Your task to perform on an android device: add a contact Image 0: 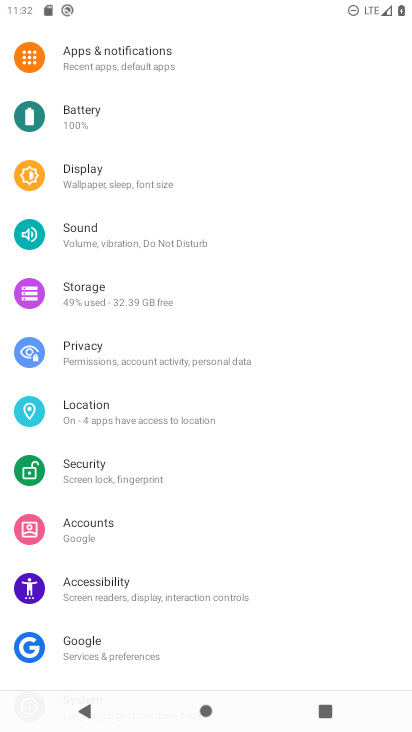
Step 0: press home button
Your task to perform on an android device: add a contact Image 1: 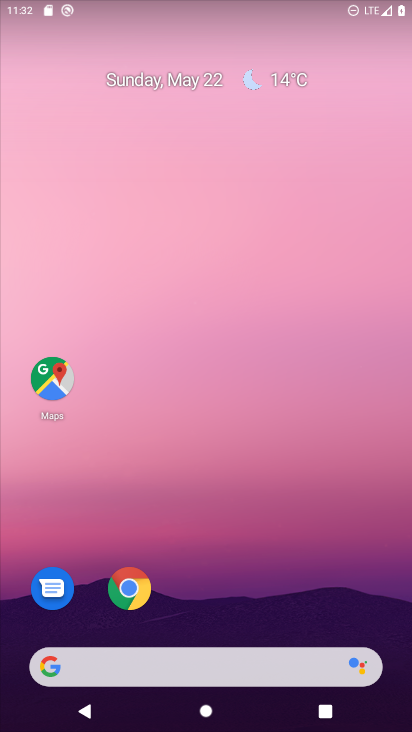
Step 1: drag from (241, 595) to (230, 131)
Your task to perform on an android device: add a contact Image 2: 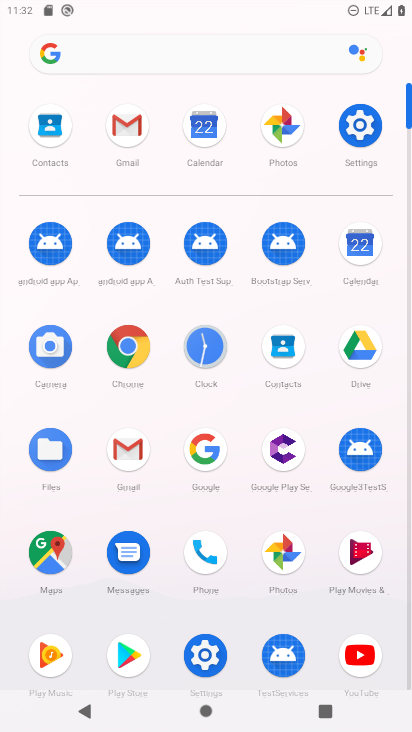
Step 2: click (293, 365)
Your task to perform on an android device: add a contact Image 3: 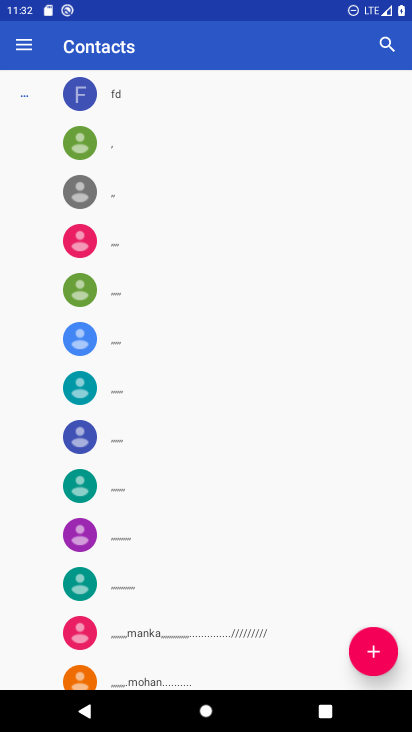
Step 3: click (376, 635)
Your task to perform on an android device: add a contact Image 4: 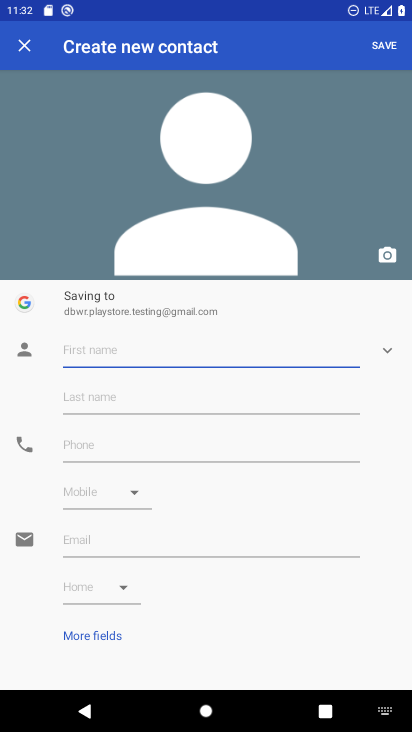
Step 4: type "jvjbllkj"
Your task to perform on an android device: add a contact Image 5: 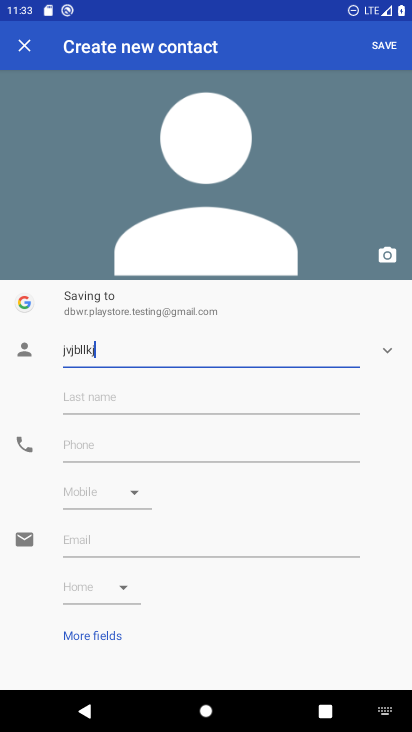
Step 5: click (136, 438)
Your task to perform on an android device: add a contact Image 6: 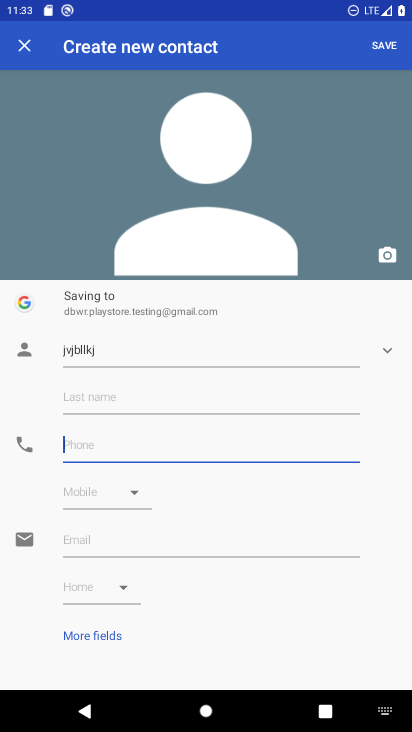
Step 6: type "98776896786"
Your task to perform on an android device: add a contact Image 7: 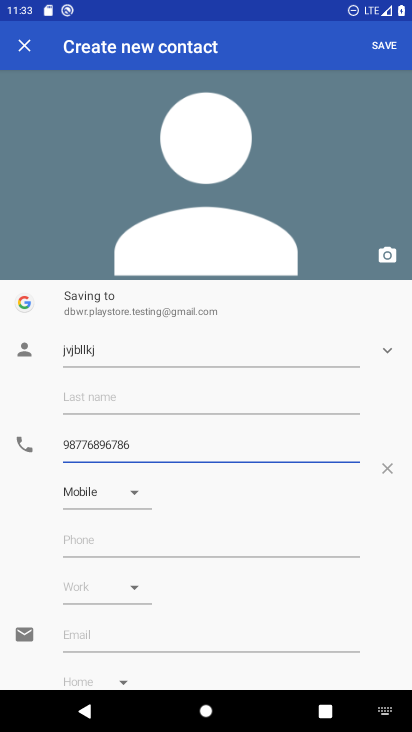
Step 7: click (392, 43)
Your task to perform on an android device: add a contact Image 8: 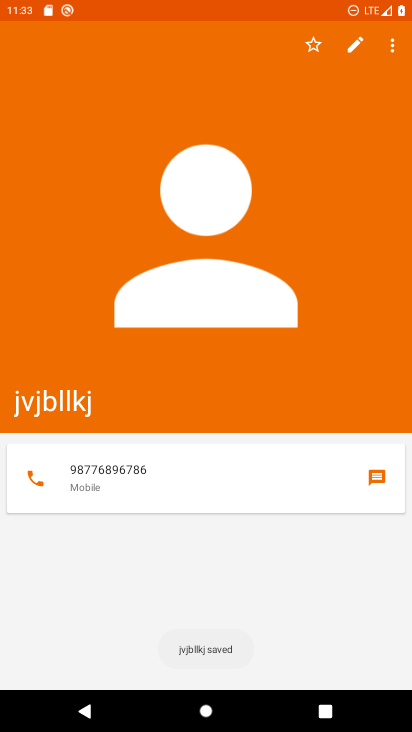
Step 8: task complete